Your task to perform on an android device: turn on location history Image 0: 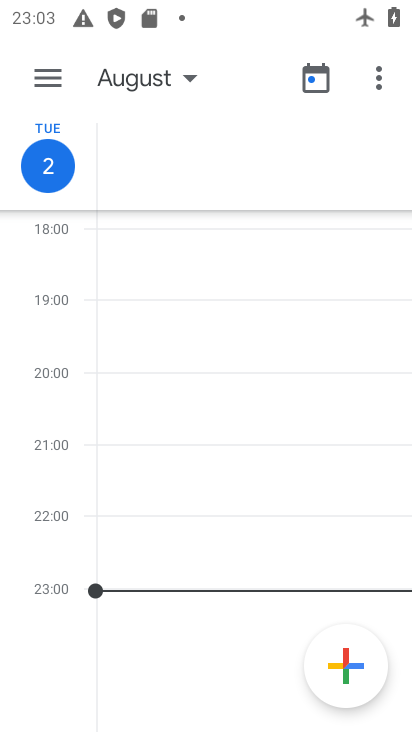
Step 0: press back button
Your task to perform on an android device: turn on location history Image 1: 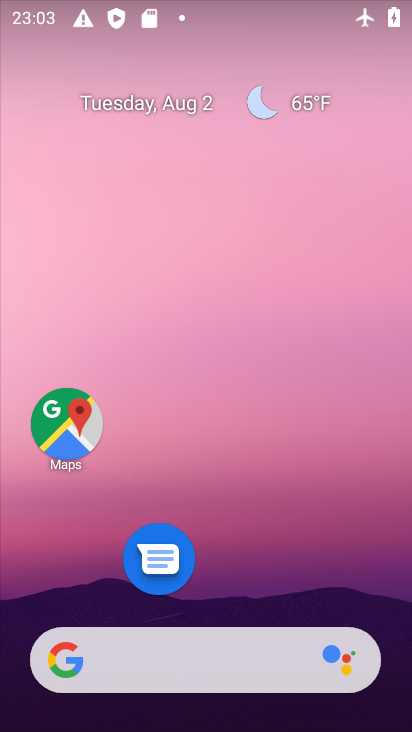
Step 1: drag from (264, 662) to (196, 312)
Your task to perform on an android device: turn on location history Image 2: 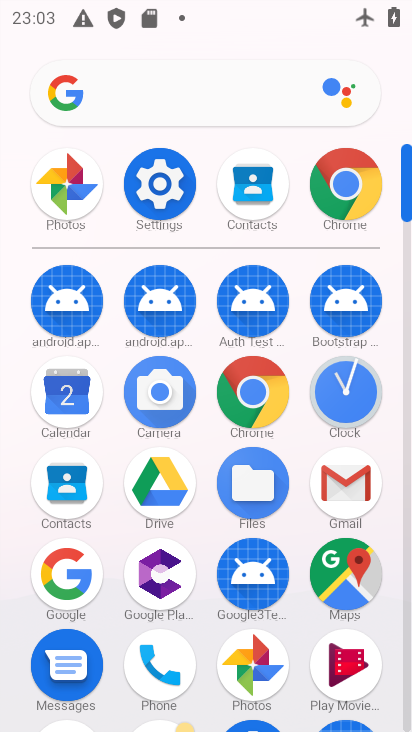
Step 2: click (173, 178)
Your task to perform on an android device: turn on location history Image 3: 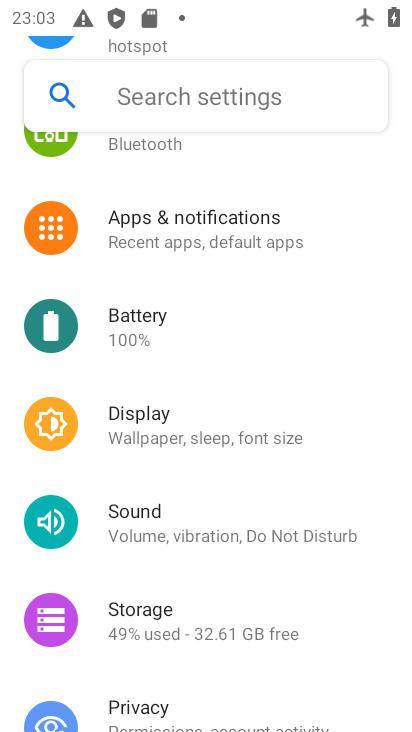
Step 3: drag from (156, 584) to (149, 327)
Your task to perform on an android device: turn on location history Image 4: 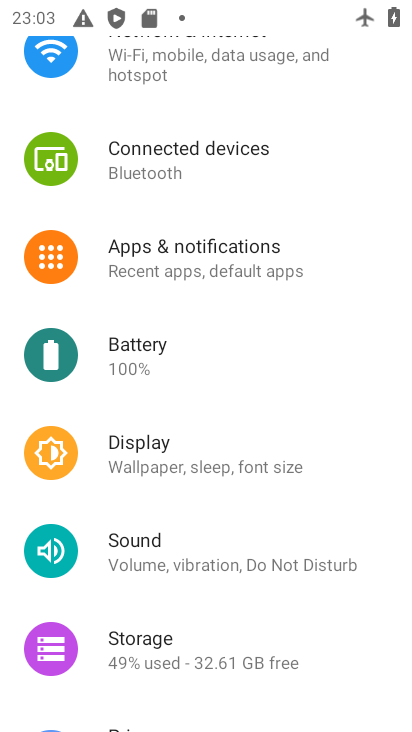
Step 4: drag from (129, 266) to (160, 218)
Your task to perform on an android device: turn on location history Image 5: 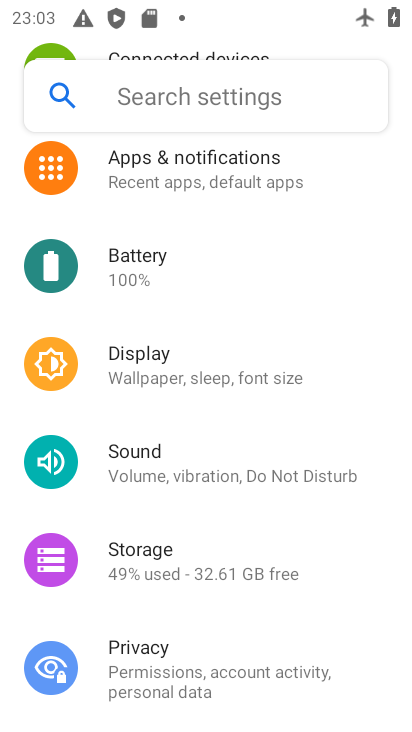
Step 5: drag from (164, 698) to (169, 263)
Your task to perform on an android device: turn on location history Image 6: 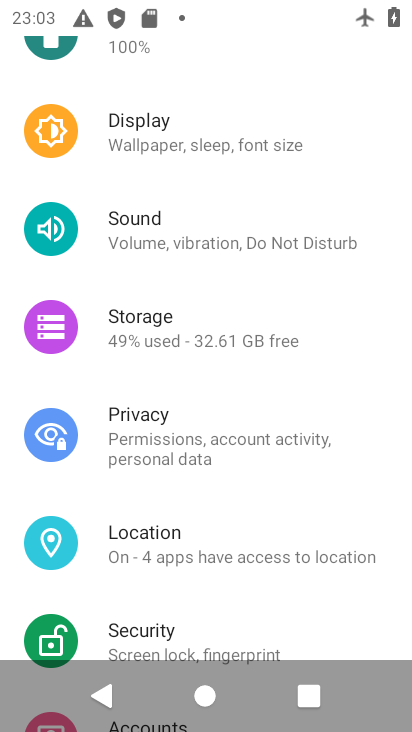
Step 6: click (141, 550)
Your task to perform on an android device: turn on location history Image 7: 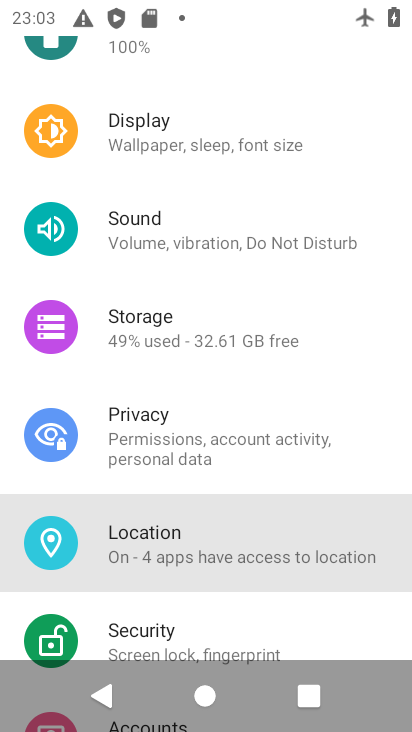
Step 7: click (141, 550)
Your task to perform on an android device: turn on location history Image 8: 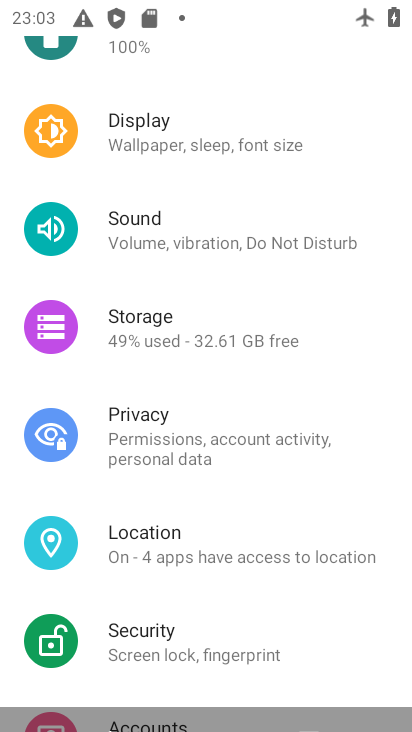
Step 8: click (141, 550)
Your task to perform on an android device: turn on location history Image 9: 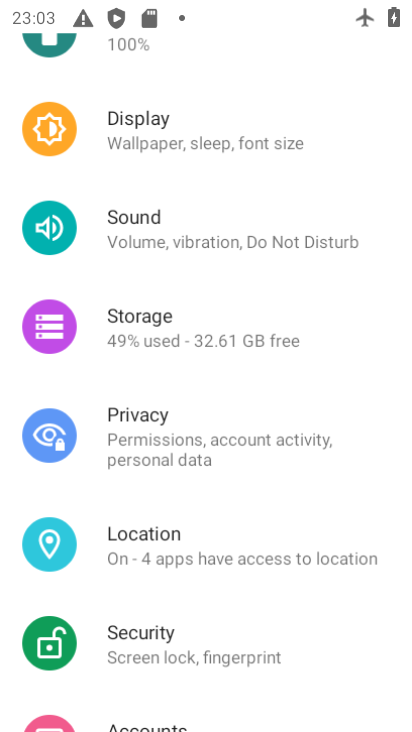
Step 9: click (142, 549)
Your task to perform on an android device: turn on location history Image 10: 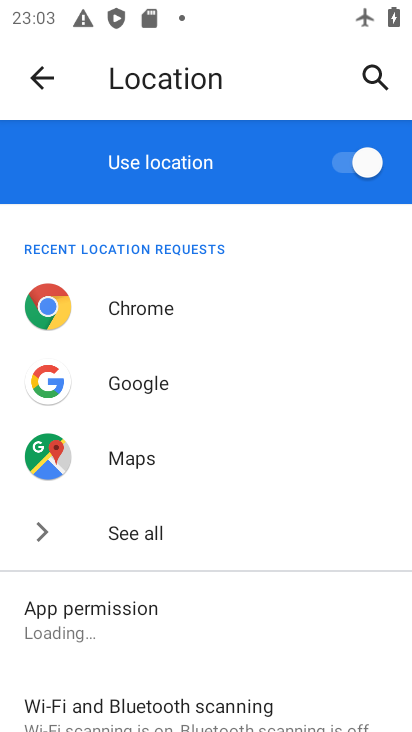
Step 10: drag from (156, 693) to (161, 314)
Your task to perform on an android device: turn on location history Image 11: 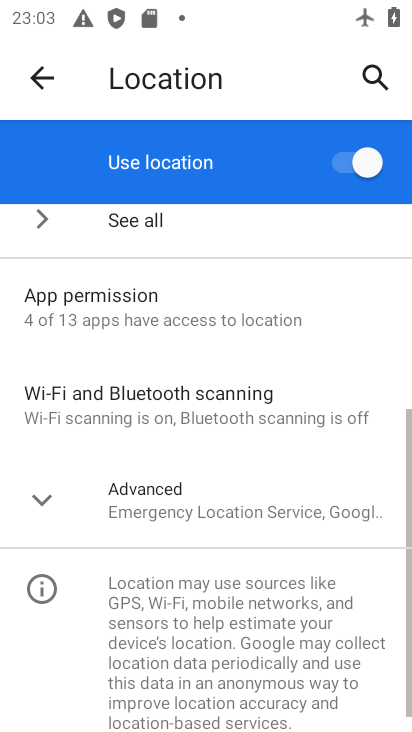
Step 11: click (173, 504)
Your task to perform on an android device: turn on location history Image 12: 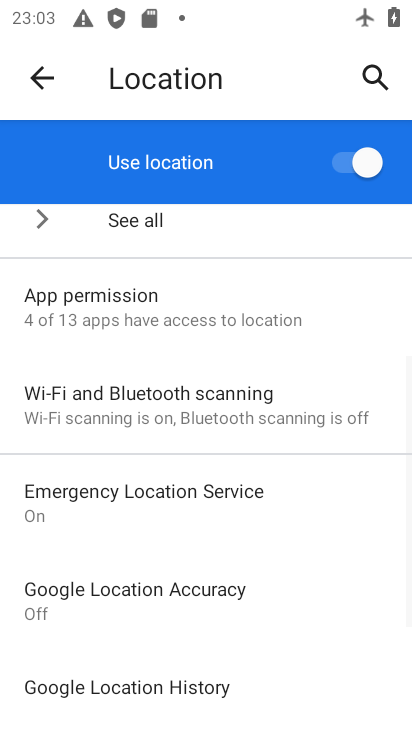
Step 12: click (173, 672)
Your task to perform on an android device: turn on location history Image 13: 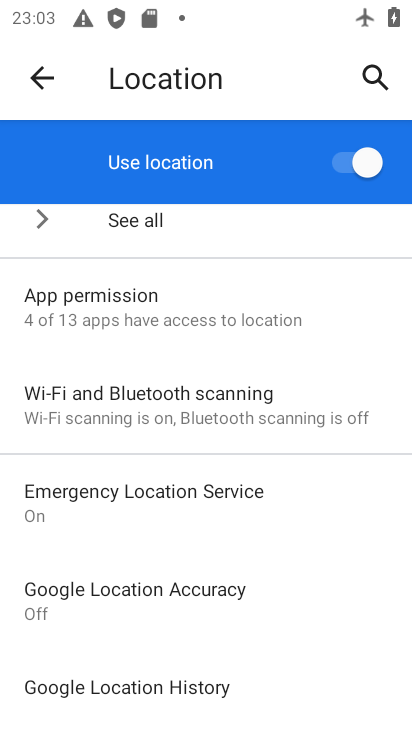
Step 13: click (173, 672)
Your task to perform on an android device: turn on location history Image 14: 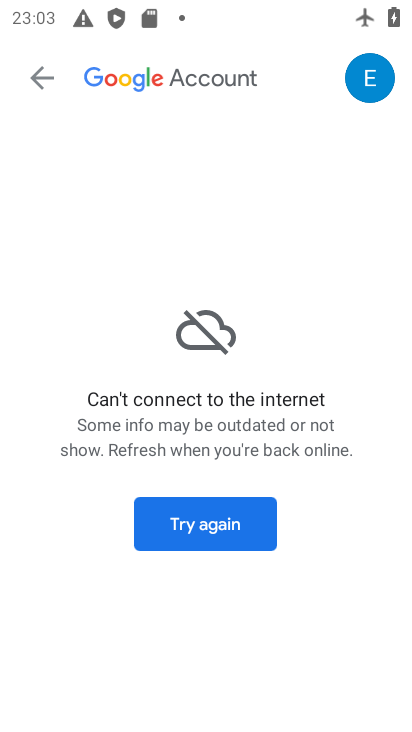
Step 14: task complete